Your task to perform on an android device: Go to accessibility settings Image 0: 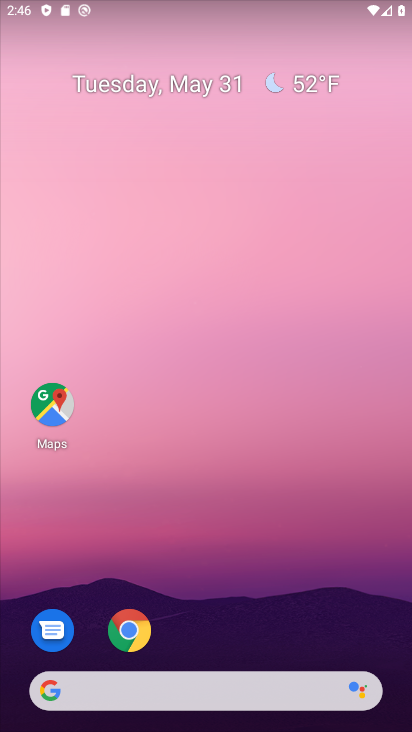
Step 0: drag from (286, 610) to (324, 59)
Your task to perform on an android device: Go to accessibility settings Image 1: 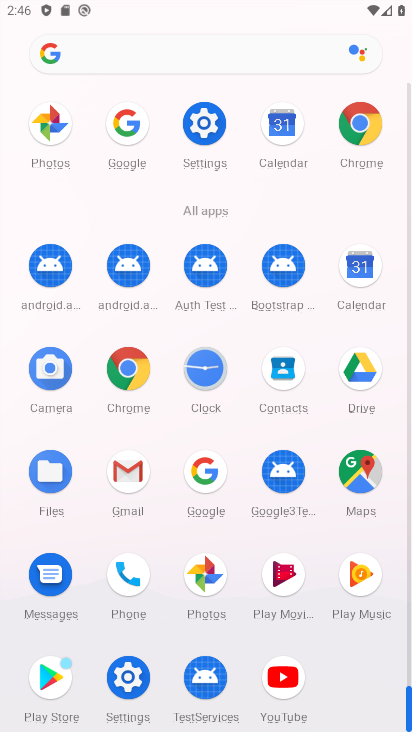
Step 1: click (199, 120)
Your task to perform on an android device: Go to accessibility settings Image 2: 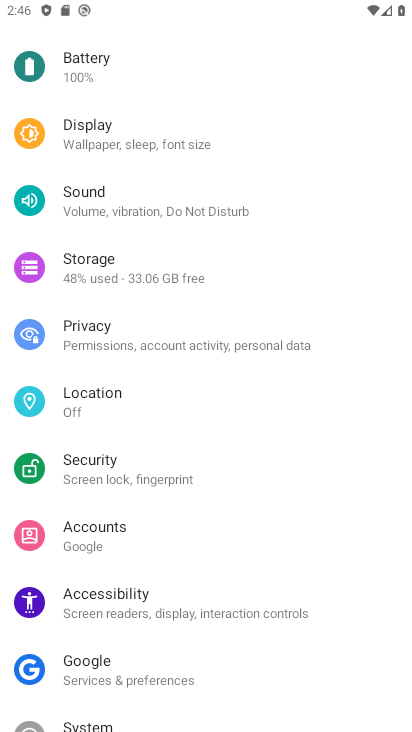
Step 2: click (102, 592)
Your task to perform on an android device: Go to accessibility settings Image 3: 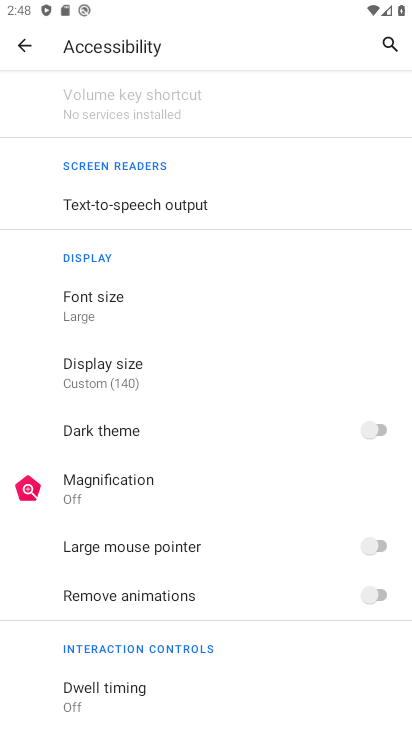
Step 3: task complete